Your task to perform on an android device: read, delete, or share a saved page in the chrome app Image 0: 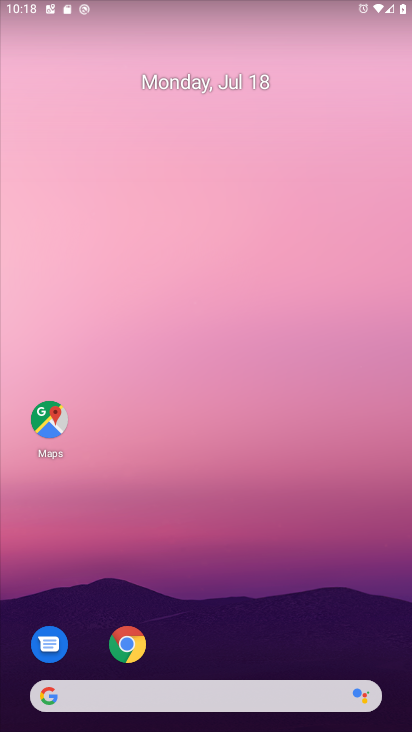
Step 0: click (59, 432)
Your task to perform on an android device: read, delete, or share a saved page in the chrome app Image 1: 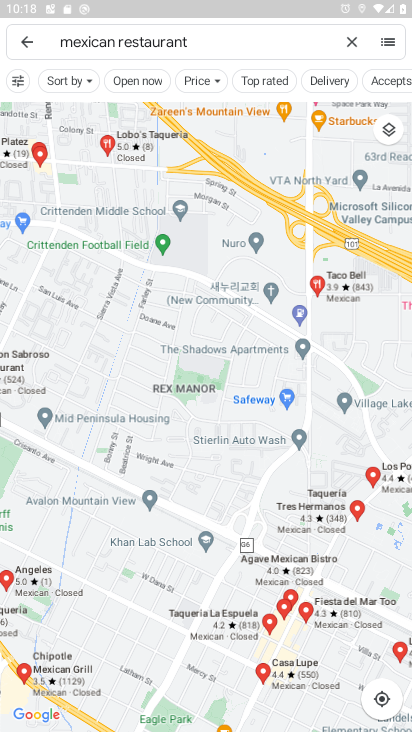
Step 1: press home button
Your task to perform on an android device: read, delete, or share a saved page in the chrome app Image 2: 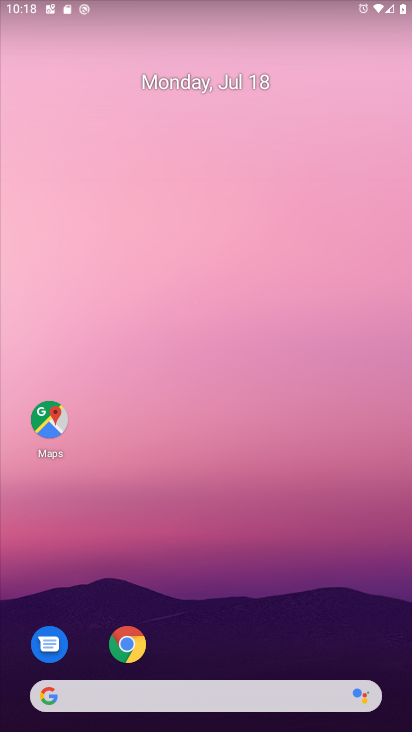
Step 2: drag from (233, 634) to (215, 195)
Your task to perform on an android device: read, delete, or share a saved page in the chrome app Image 3: 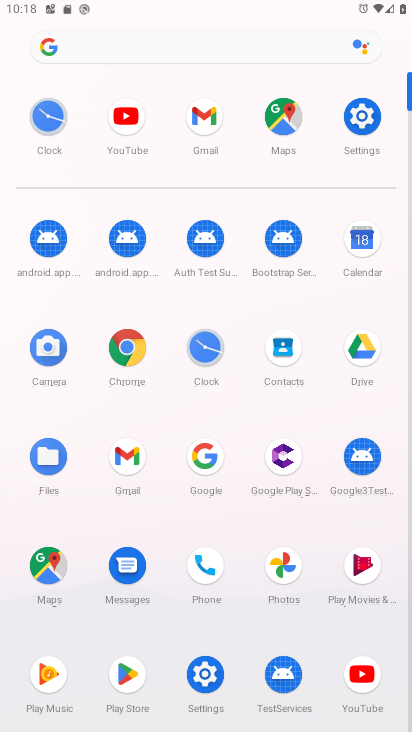
Step 3: click (131, 339)
Your task to perform on an android device: read, delete, or share a saved page in the chrome app Image 4: 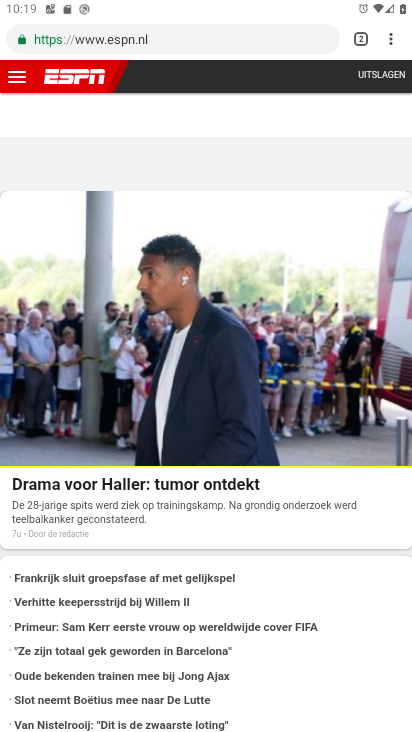
Step 4: click (391, 31)
Your task to perform on an android device: read, delete, or share a saved page in the chrome app Image 5: 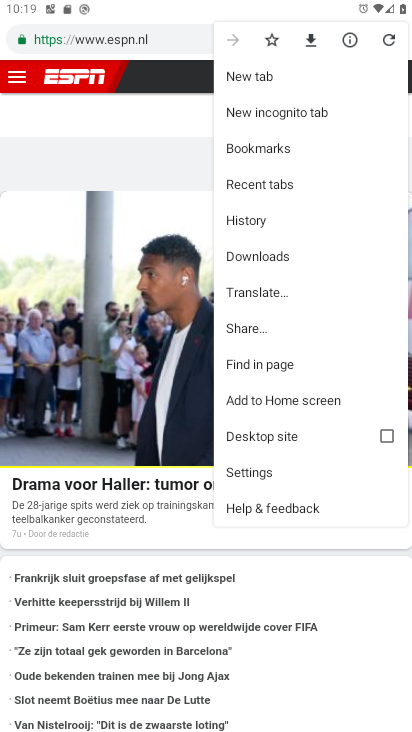
Step 5: click (253, 267)
Your task to perform on an android device: read, delete, or share a saved page in the chrome app Image 6: 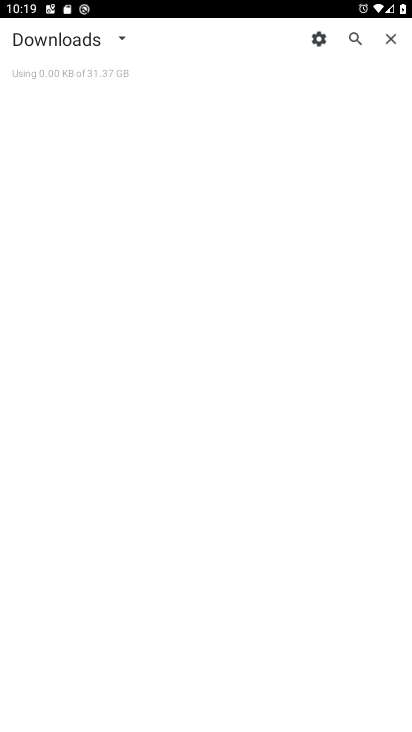
Step 6: task complete